Your task to perform on an android device: see sites visited before in the chrome app Image 0: 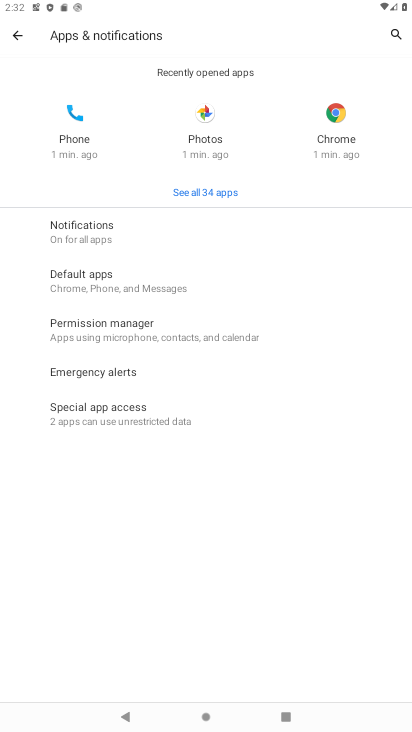
Step 0: press home button
Your task to perform on an android device: see sites visited before in the chrome app Image 1: 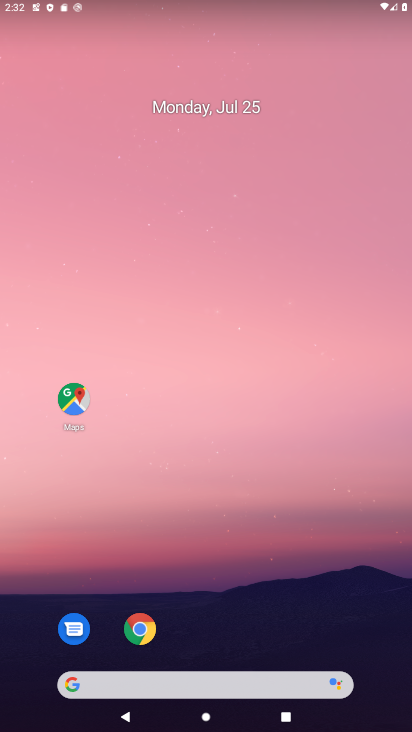
Step 1: click (130, 640)
Your task to perform on an android device: see sites visited before in the chrome app Image 2: 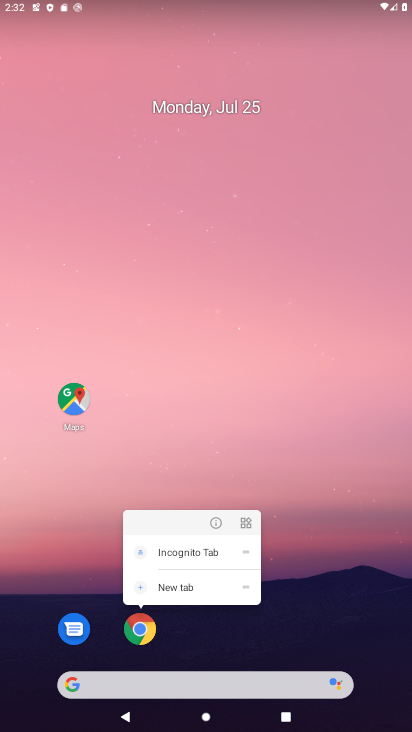
Step 2: click (129, 634)
Your task to perform on an android device: see sites visited before in the chrome app Image 3: 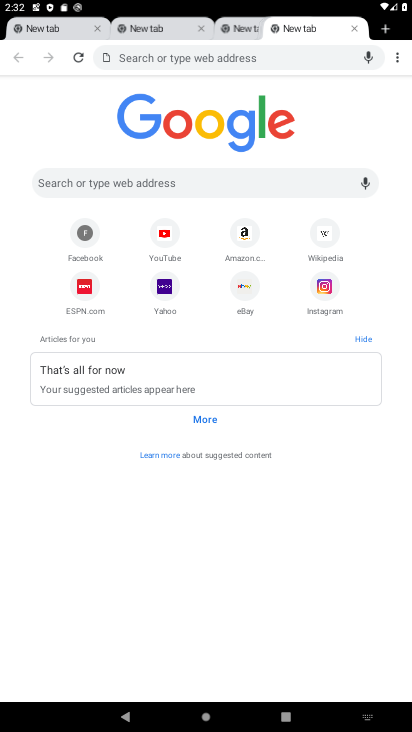
Step 3: click (397, 57)
Your task to perform on an android device: see sites visited before in the chrome app Image 4: 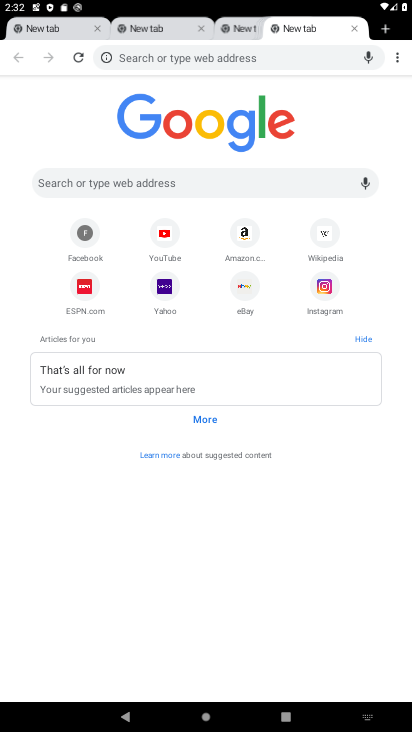
Step 4: click (395, 59)
Your task to perform on an android device: see sites visited before in the chrome app Image 5: 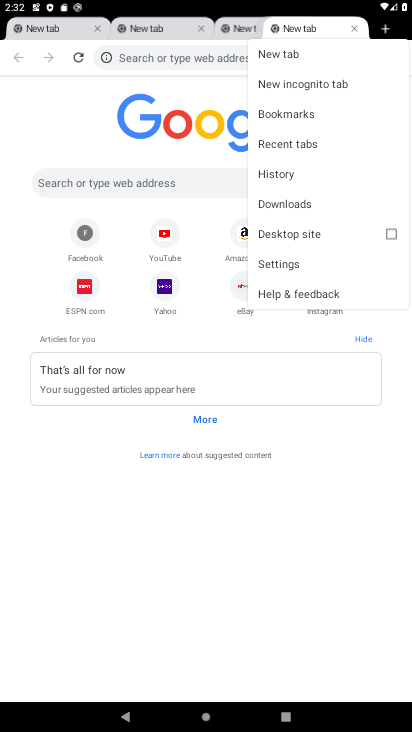
Step 5: click (291, 259)
Your task to perform on an android device: see sites visited before in the chrome app Image 6: 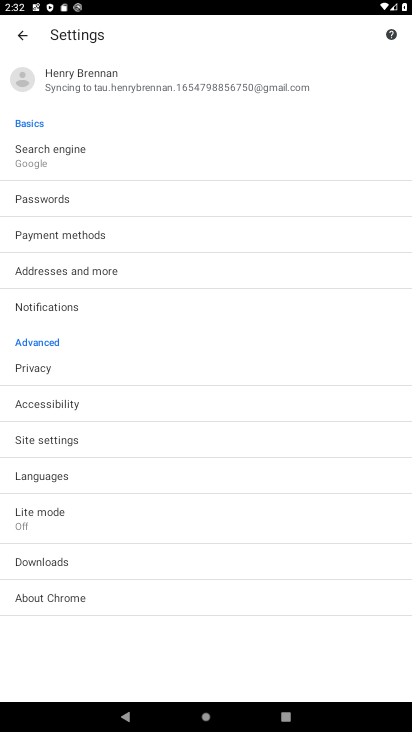
Step 6: click (42, 437)
Your task to perform on an android device: see sites visited before in the chrome app Image 7: 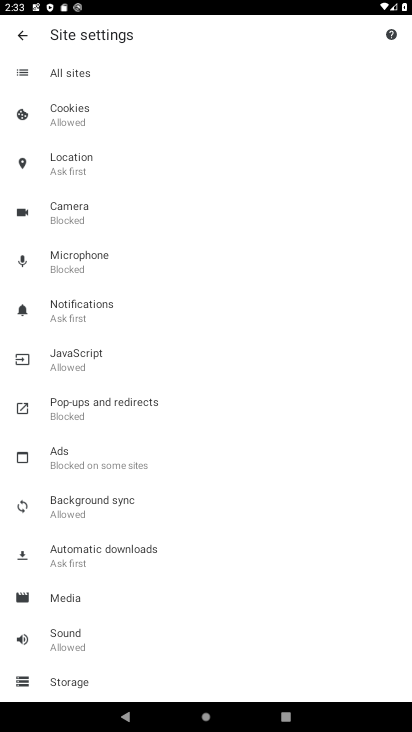
Step 7: task complete